Your task to perform on an android device: Open Google Maps and go to "Timeline" Image 0: 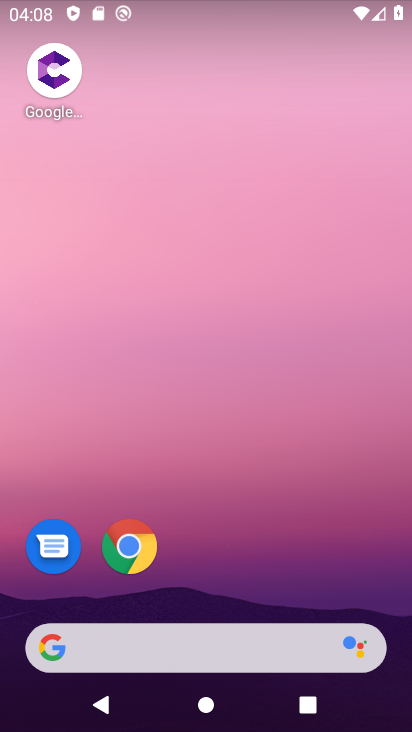
Step 0: click (139, 160)
Your task to perform on an android device: Open Google Maps and go to "Timeline" Image 1: 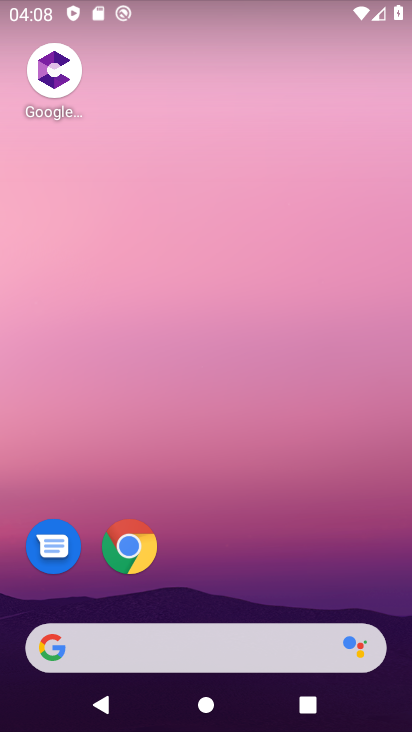
Step 1: drag from (222, 582) to (175, 218)
Your task to perform on an android device: Open Google Maps and go to "Timeline" Image 2: 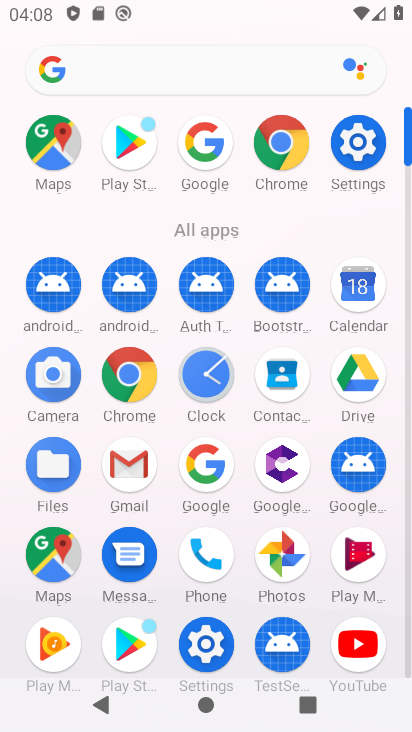
Step 2: click (63, 564)
Your task to perform on an android device: Open Google Maps and go to "Timeline" Image 3: 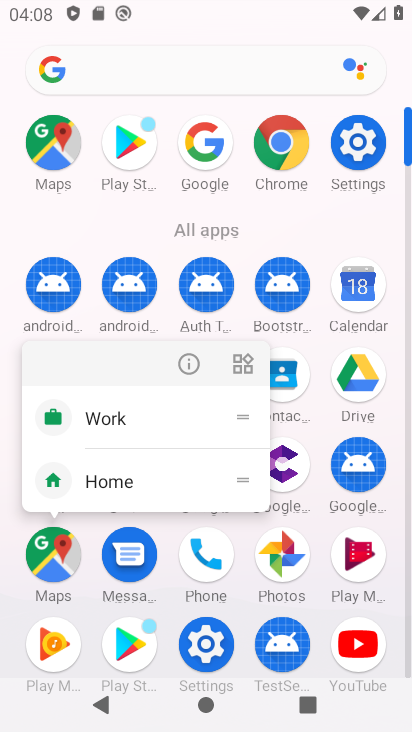
Step 3: click (53, 552)
Your task to perform on an android device: Open Google Maps and go to "Timeline" Image 4: 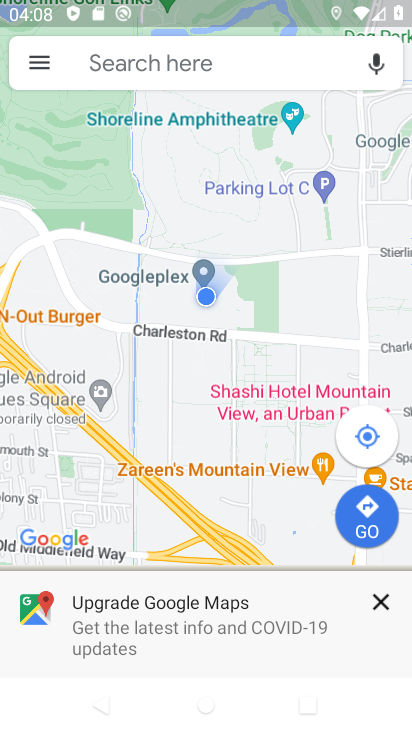
Step 4: click (51, 55)
Your task to perform on an android device: Open Google Maps and go to "Timeline" Image 5: 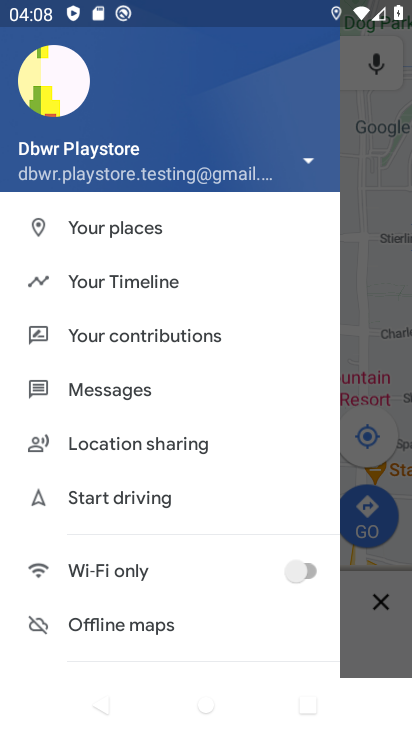
Step 5: click (203, 284)
Your task to perform on an android device: Open Google Maps and go to "Timeline" Image 6: 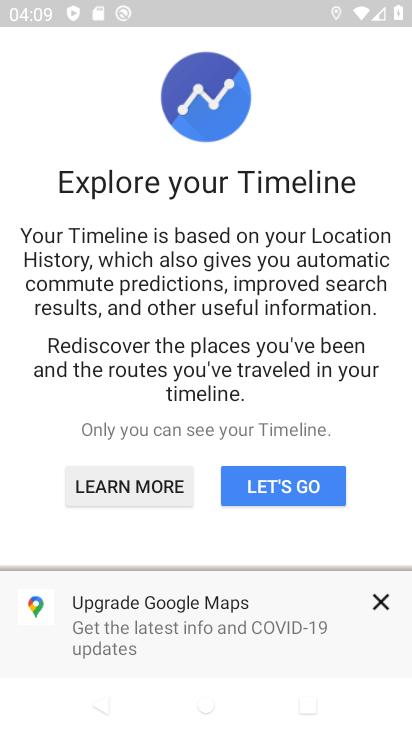
Step 6: click (383, 601)
Your task to perform on an android device: Open Google Maps and go to "Timeline" Image 7: 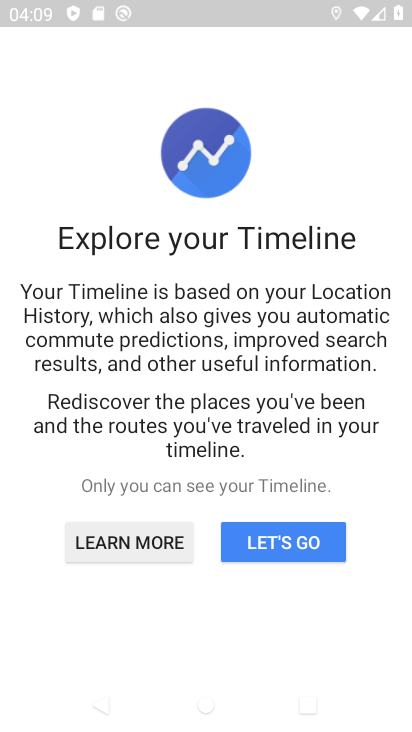
Step 7: click (250, 540)
Your task to perform on an android device: Open Google Maps and go to "Timeline" Image 8: 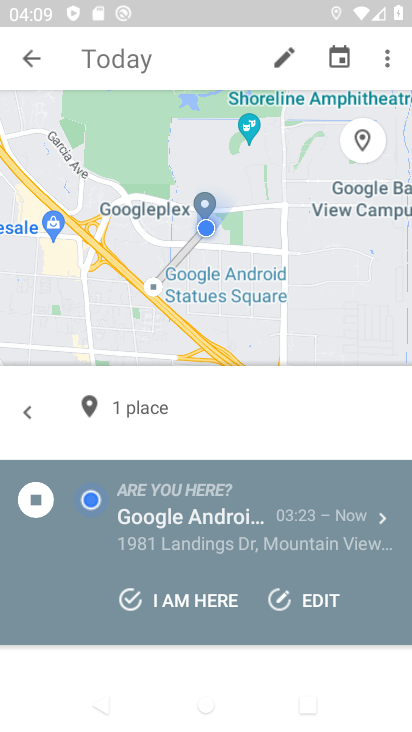
Step 8: task complete